Your task to perform on an android device: turn pop-ups off in chrome Image 0: 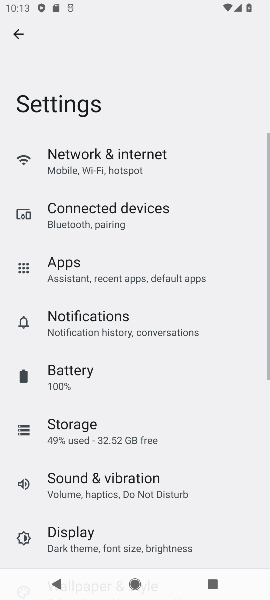
Step 0: press back button
Your task to perform on an android device: turn pop-ups off in chrome Image 1: 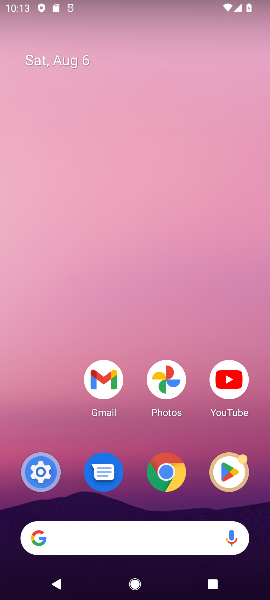
Step 1: drag from (158, 580) to (107, 171)
Your task to perform on an android device: turn pop-ups off in chrome Image 2: 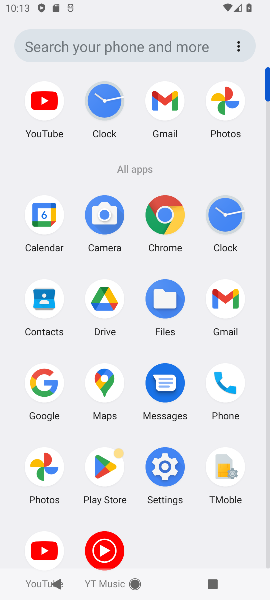
Step 2: click (165, 219)
Your task to perform on an android device: turn pop-ups off in chrome Image 3: 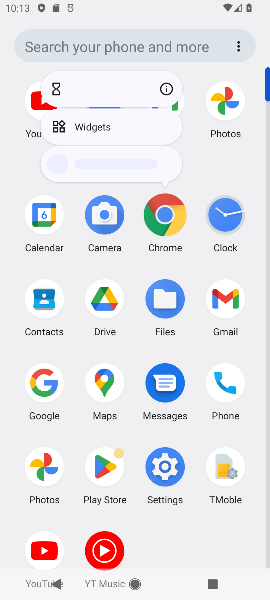
Step 3: click (167, 206)
Your task to perform on an android device: turn pop-ups off in chrome Image 4: 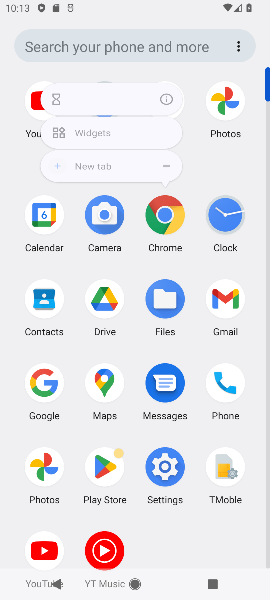
Step 4: click (167, 206)
Your task to perform on an android device: turn pop-ups off in chrome Image 5: 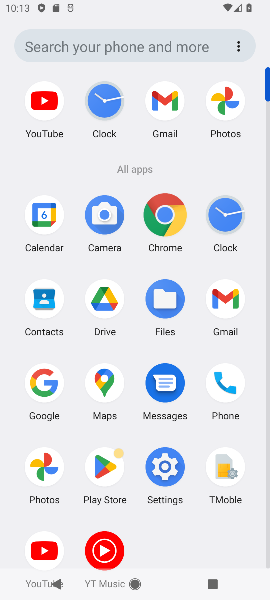
Step 5: click (167, 206)
Your task to perform on an android device: turn pop-ups off in chrome Image 6: 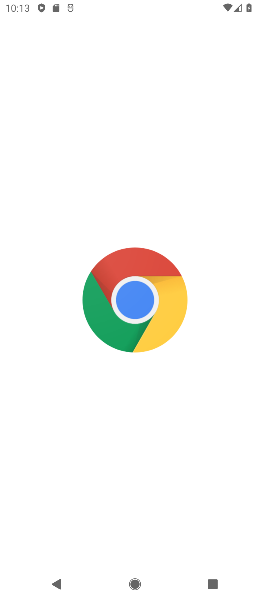
Step 6: click (170, 216)
Your task to perform on an android device: turn pop-ups off in chrome Image 7: 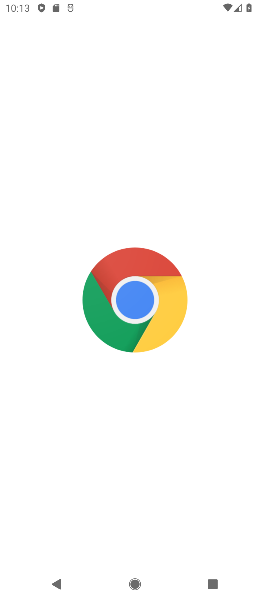
Step 7: click (167, 215)
Your task to perform on an android device: turn pop-ups off in chrome Image 8: 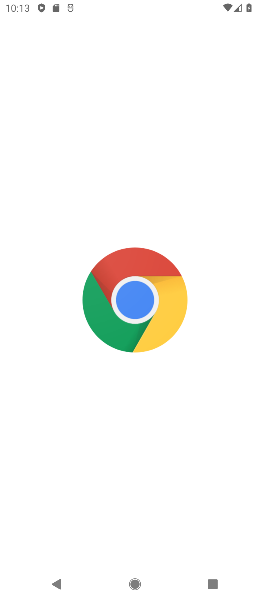
Step 8: click (167, 216)
Your task to perform on an android device: turn pop-ups off in chrome Image 9: 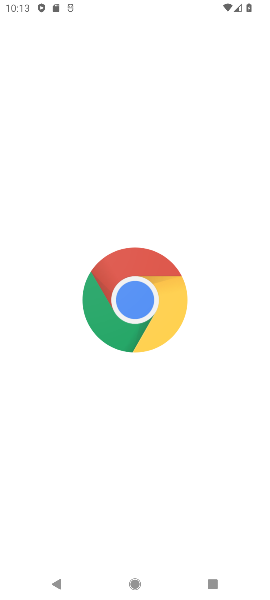
Step 9: click (132, 273)
Your task to perform on an android device: turn pop-ups off in chrome Image 10: 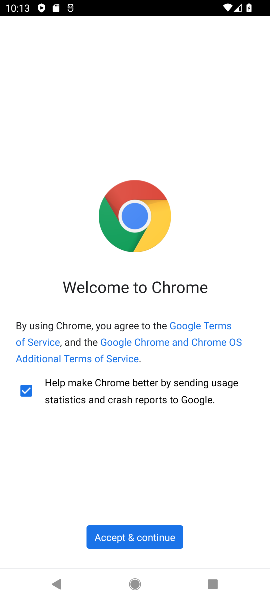
Step 10: click (132, 273)
Your task to perform on an android device: turn pop-ups off in chrome Image 11: 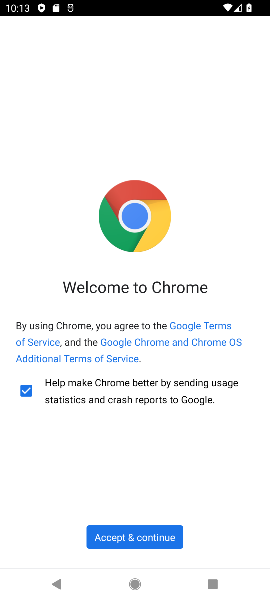
Step 11: click (126, 533)
Your task to perform on an android device: turn pop-ups off in chrome Image 12: 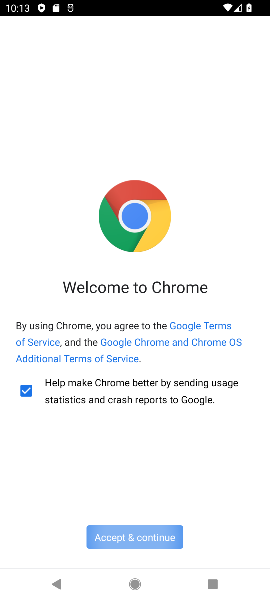
Step 12: click (126, 533)
Your task to perform on an android device: turn pop-ups off in chrome Image 13: 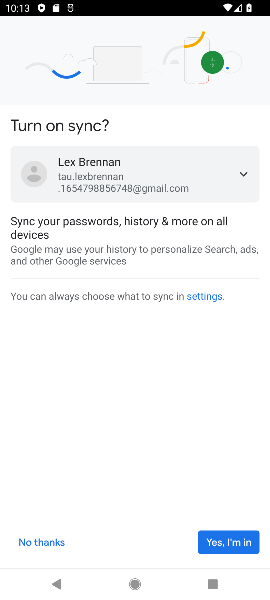
Step 13: click (49, 542)
Your task to perform on an android device: turn pop-ups off in chrome Image 14: 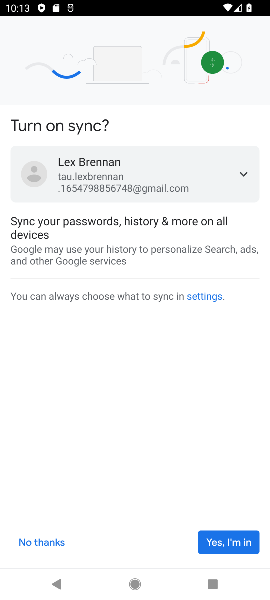
Step 14: click (46, 540)
Your task to perform on an android device: turn pop-ups off in chrome Image 15: 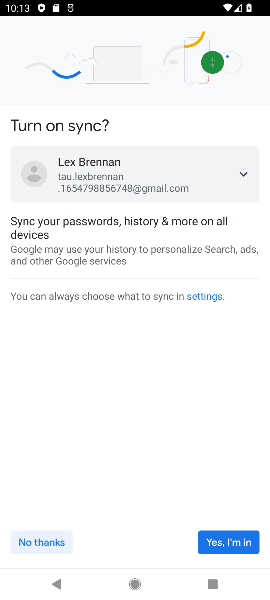
Step 15: click (46, 540)
Your task to perform on an android device: turn pop-ups off in chrome Image 16: 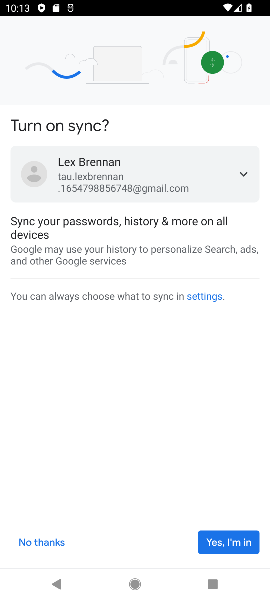
Step 16: click (29, 539)
Your task to perform on an android device: turn pop-ups off in chrome Image 17: 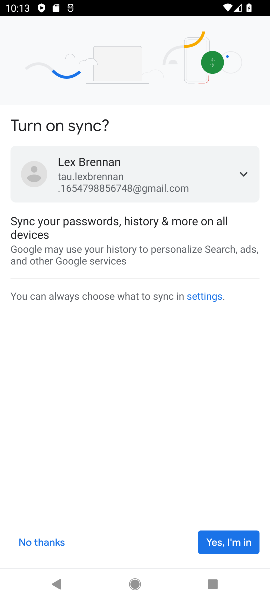
Step 17: click (29, 539)
Your task to perform on an android device: turn pop-ups off in chrome Image 18: 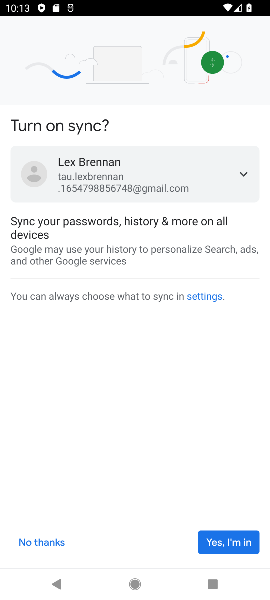
Step 18: click (29, 539)
Your task to perform on an android device: turn pop-ups off in chrome Image 19: 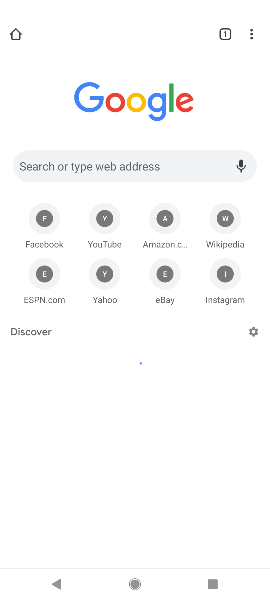
Step 19: click (46, 537)
Your task to perform on an android device: turn pop-ups off in chrome Image 20: 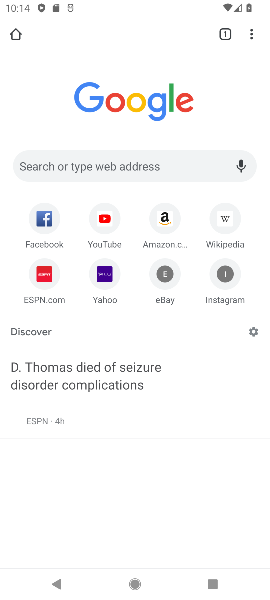
Step 20: click (247, 41)
Your task to perform on an android device: turn pop-ups off in chrome Image 21: 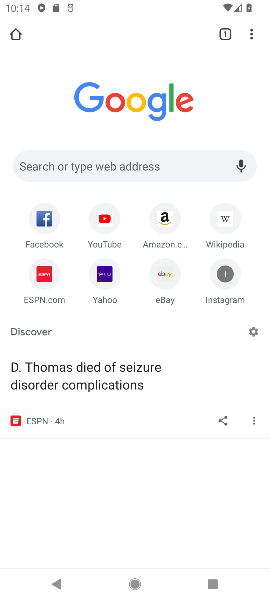
Step 21: drag from (247, 40) to (130, 412)
Your task to perform on an android device: turn pop-ups off in chrome Image 22: 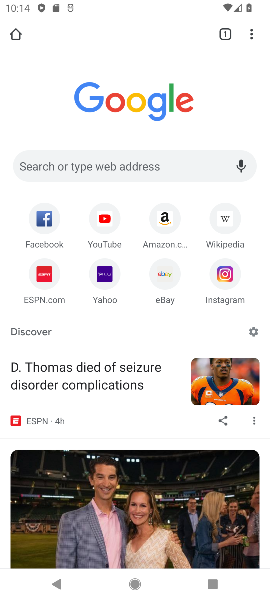
Step 22: drag from (249, 28) to (139, 307)
Your task to perform on an android device: turn pop-ups off in chrome Image 23: 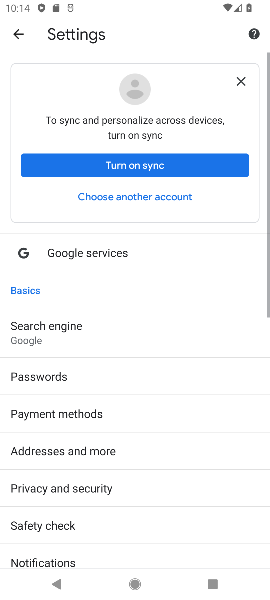
Step 23: drag from (55, 493) to (61, 237)
Your task to perform on an android device: turn pop-ups off in chrome Image 24: 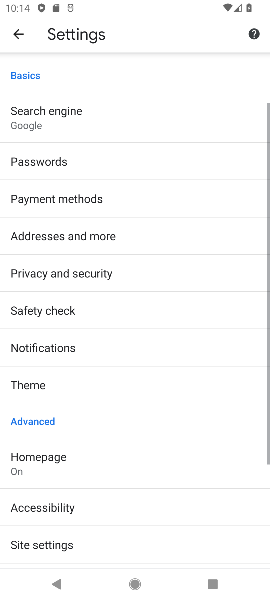
Step 24: drag from (78, 408) to (138, 192)
Your task to perform on an android device: turn pop-ups off in chrome Image 25: 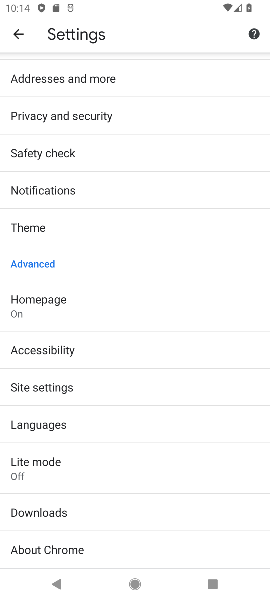
Step 25: click (24, 380)
Your task to perform on an android device: turn pop-ups off in chrome Image 26: 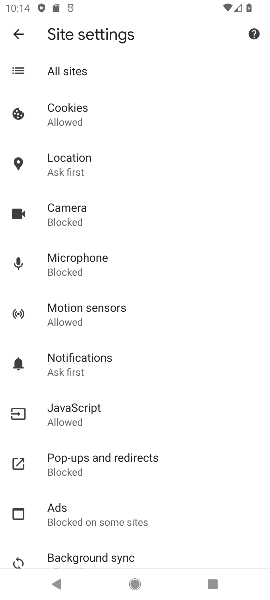
Step 26: click (90, 464)
Your task to perform on an android device: turn pop-ups off in chrome Image 27: 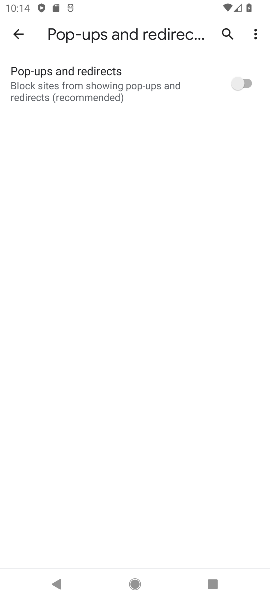
Step 27: click (239, 67)
Your task to perform on an android device: turn pop-ups off in chrome Image 28: 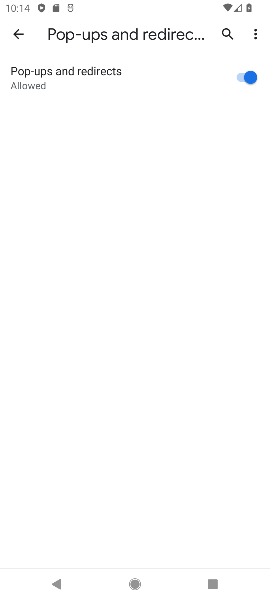
Step 28: click (247, 69)
Your task to perform on an android device: turn pop-ups off in chrome Image 29: 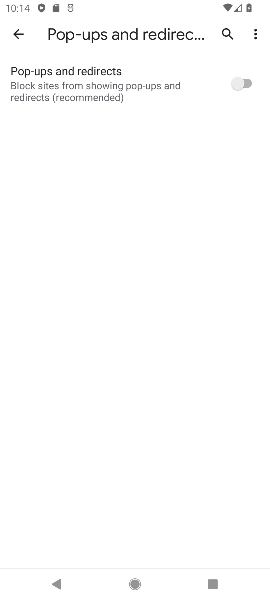
Step 29: task complete